Your task to perform on an android device: change notifications settings Image 0: 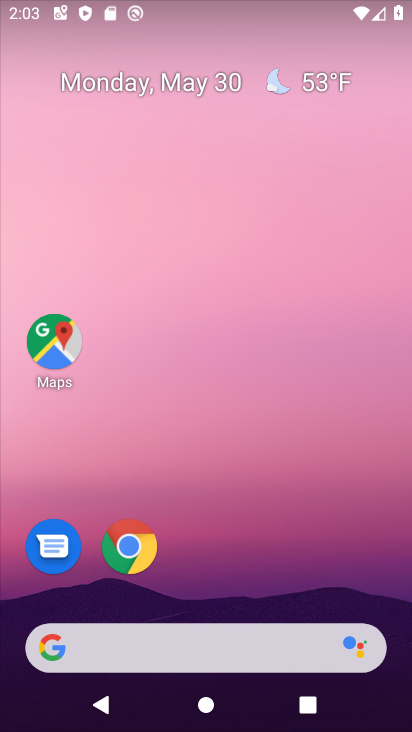
Step 0: drag from (224, 575) to (230, 55)
Your task to perform on an android device: change notifications settings Image 1: 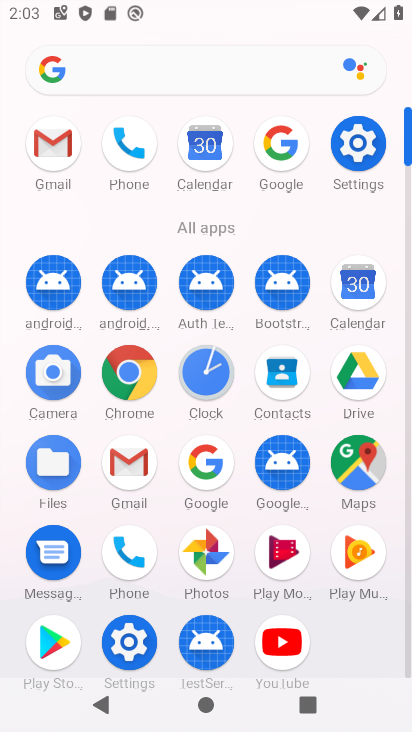
Step 1: click (127, 635)
Your task to perform on an android device: change notifications settings Image 2: 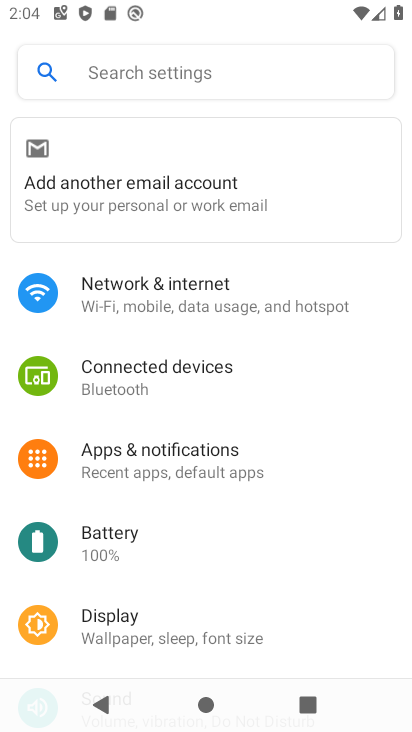
Step 2: click (257, 445)
Your task to perform on an android device: change notifications settings Image 3: 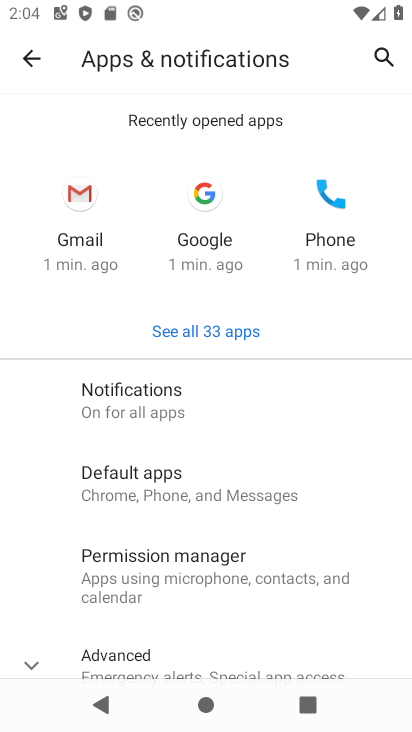
Step 3: click (199, 394)
Your task to perform on an android device: change notifications settings Image 4: 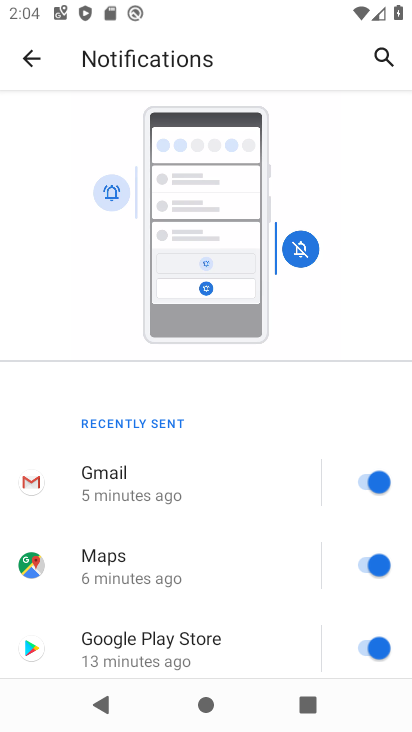
Step 4: drag from (237, 644) to (243, 207)
Your task to perform on an android device: change notifications settings Image 5: 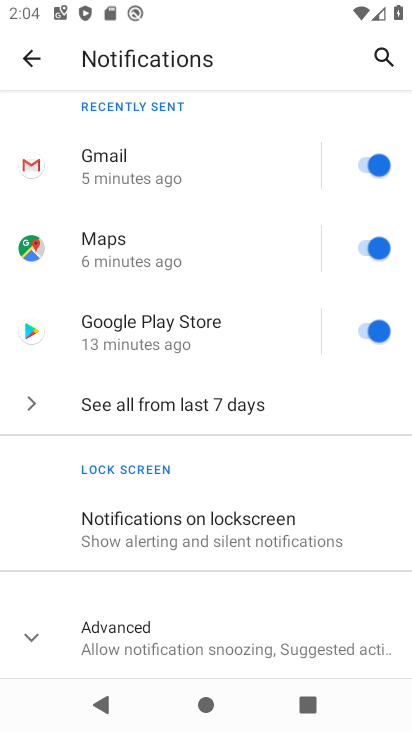
Step 5: click (36, 634)
Your task to perform on an android device: change notifications settings Image 6: 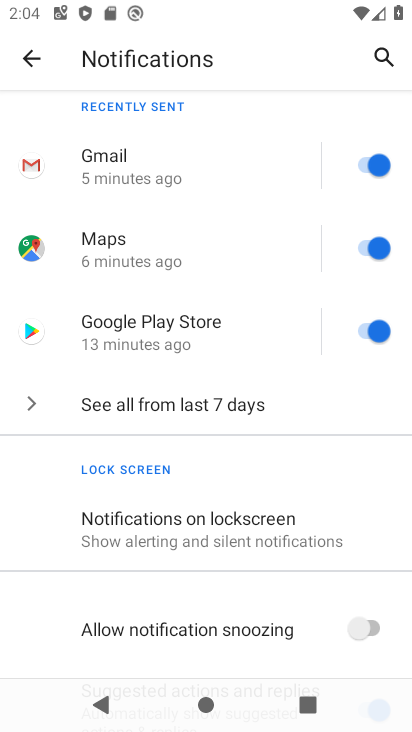
Step 6: drag from (256, 594) to (296, 167)
Your task to perform on an android device: change notifications settings Image 7: 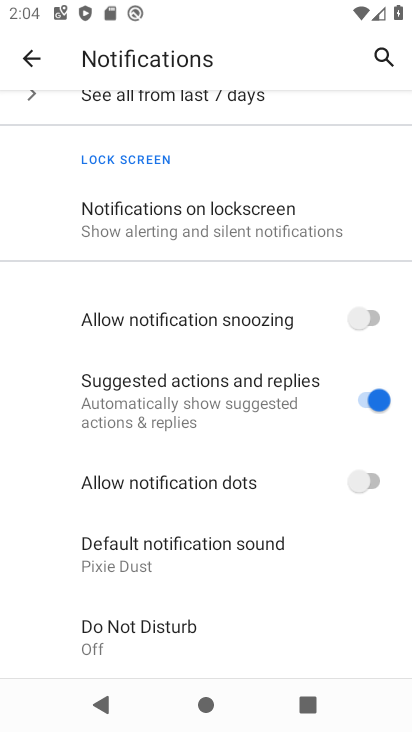
Step 7: click (357, 316)
Your task to perform on an android device: change notifications settings Image 8: 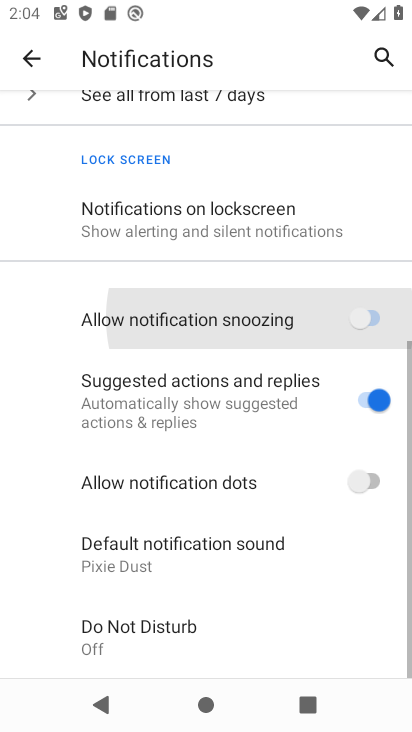
Step 8: click (364, 481)
Your task to perform on an android device: change notifications settings Image 9: 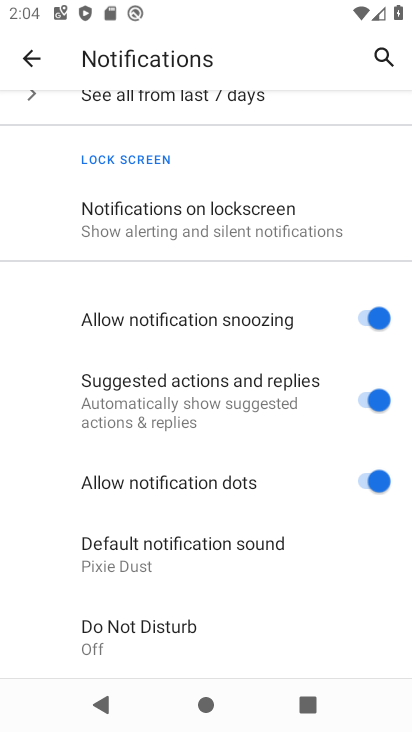
Step 9: task complete